Your task to perform on an android device: turn on location history Image 0: 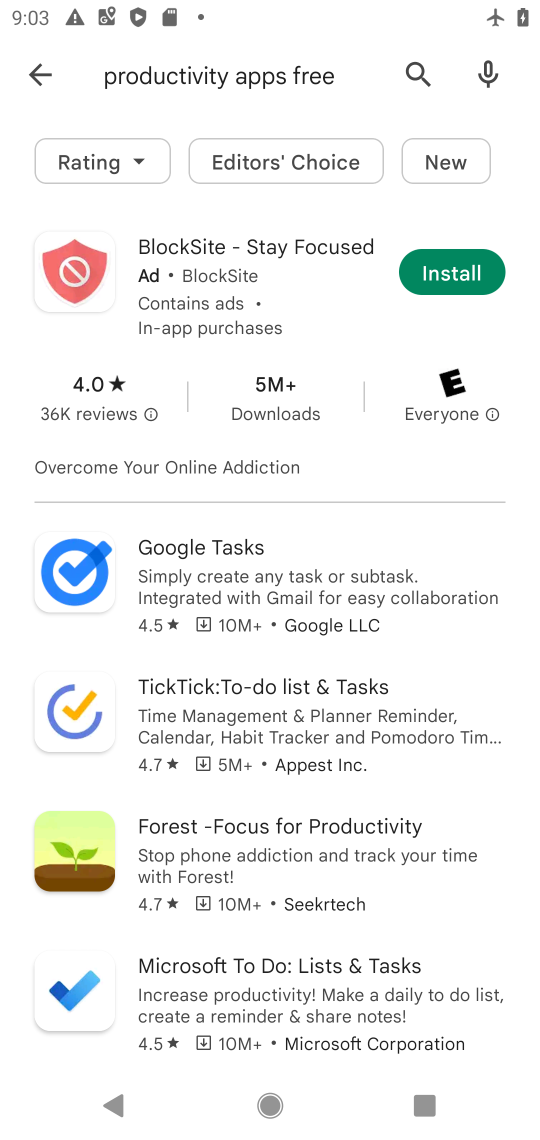
Step 0: press home button
Your task to perform on an android device: turn on location history Image 1: 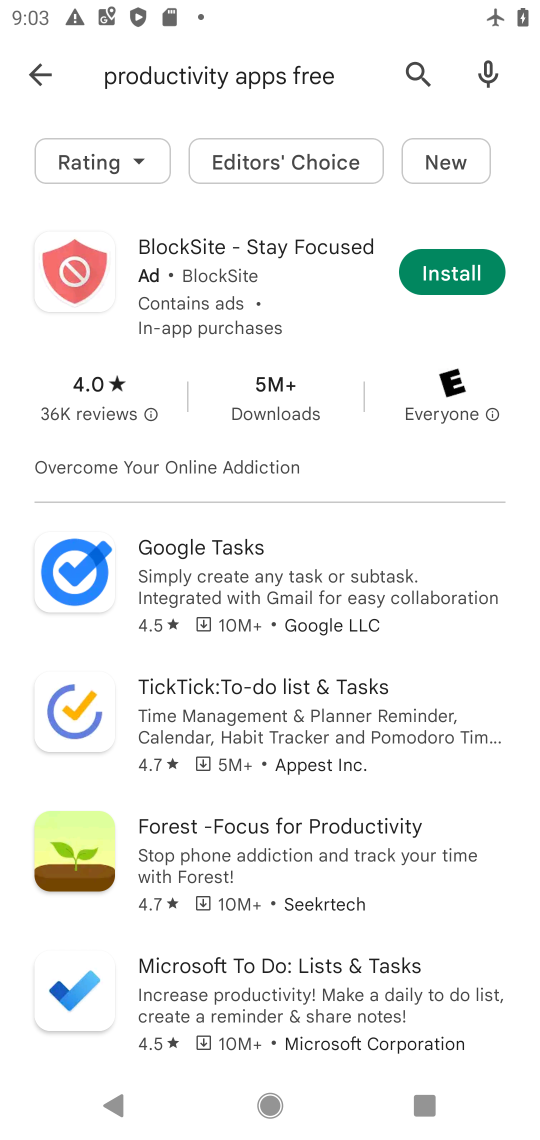
Step 1: press home button
Your task to perform on an android device: turn on location history Image 2: 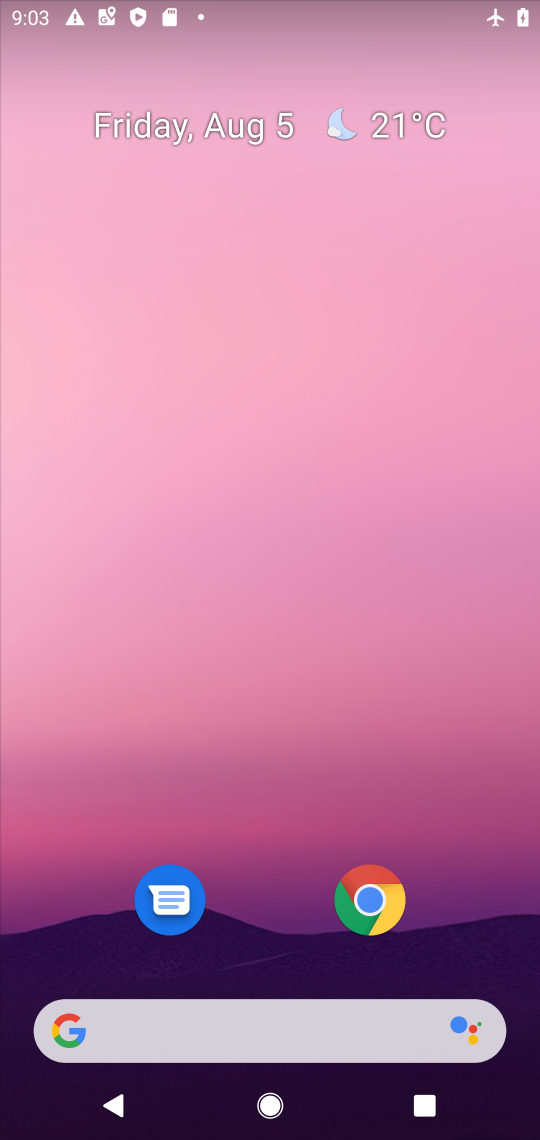
Step 2: drag from (323, 1011) to (323, 231)
Your task to perform on an android device: turn on location history Image 3: 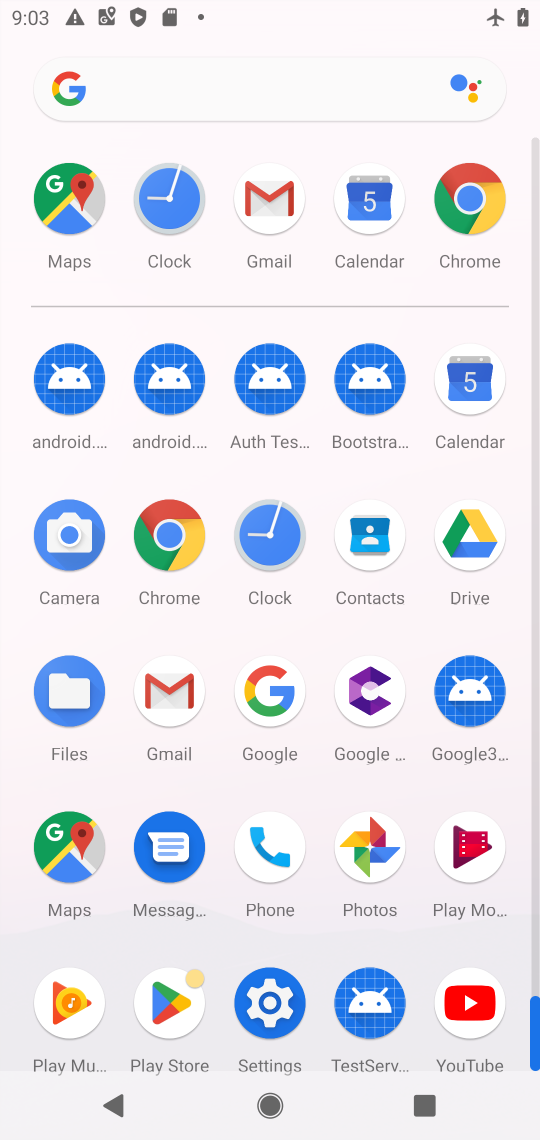
Step 3: click (77, 202)
Your task to perform on an android device: turn on location history Image 4: 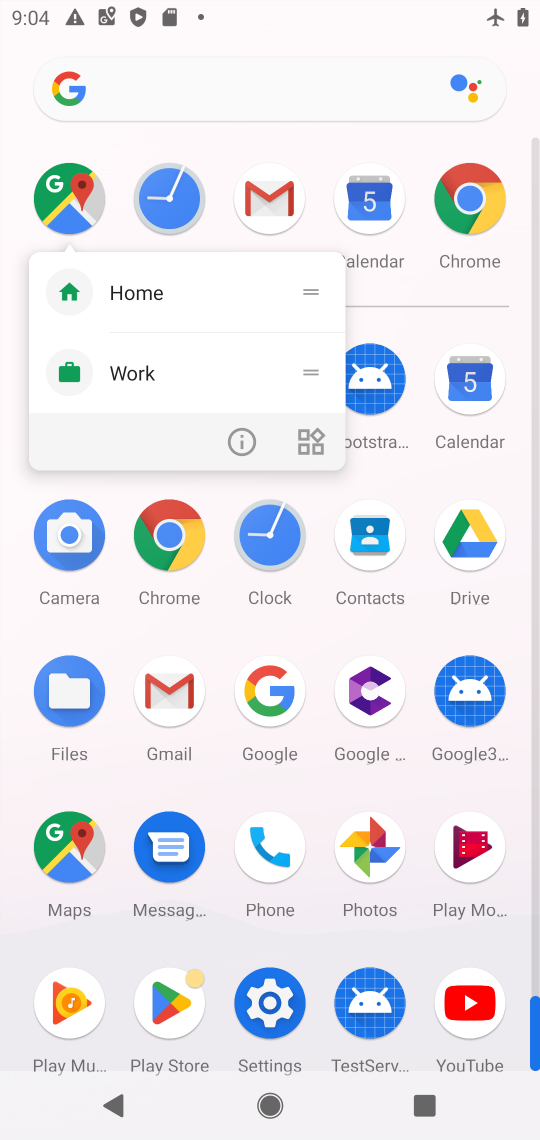
Step 4: click (56, 206)
Your task to perform on an android device: turn on location history Image 5: 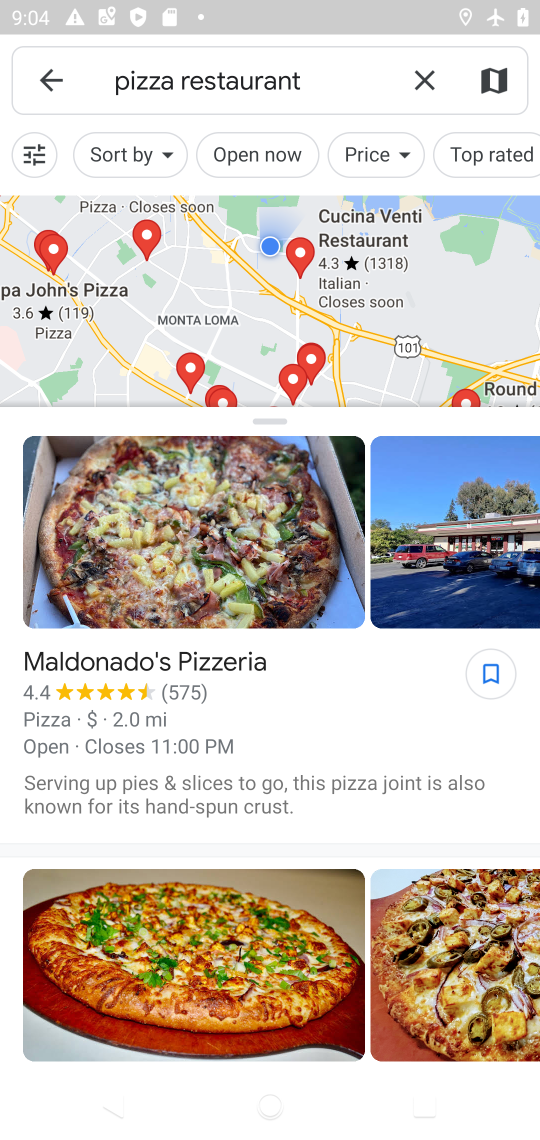
Step 5: click (51, 85)
Your task to perform on an android device: turn on location history Image 6: 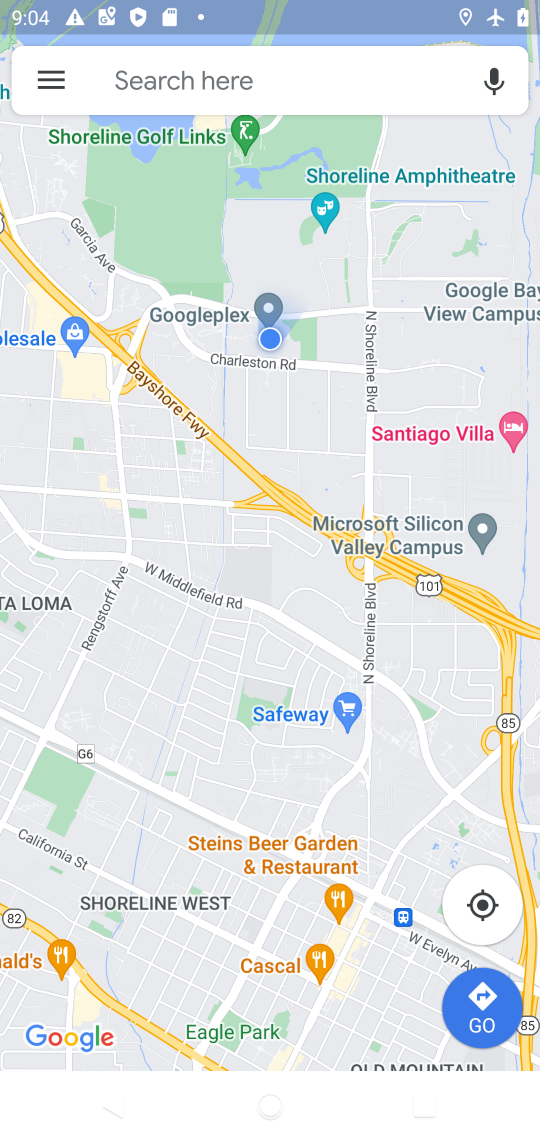
Step 6: click (51, 85)
Your task to perform on an android device: turn on location history Image 7: 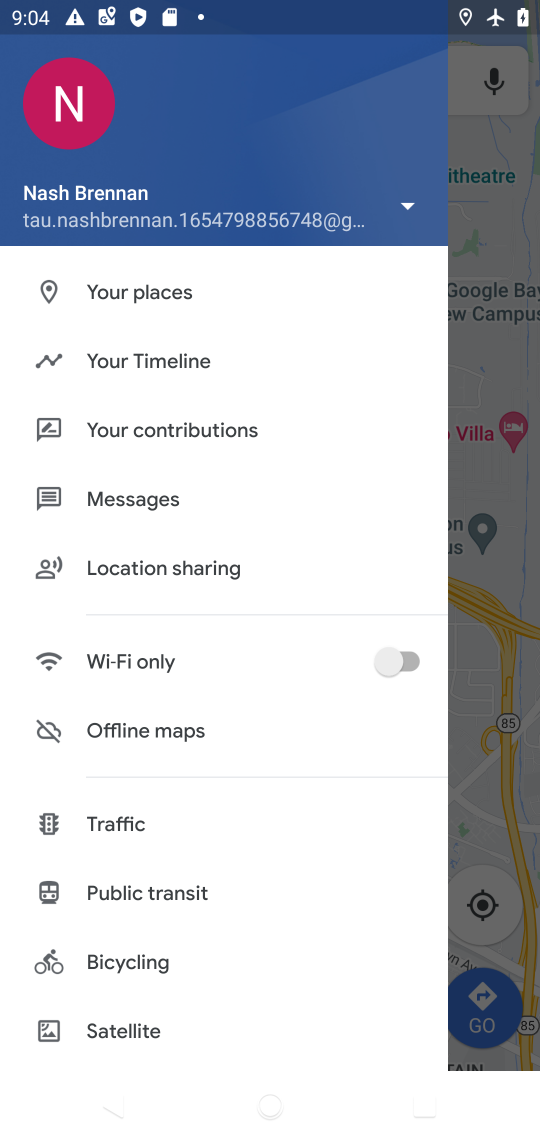
Step 7: click (46, 348)
Your task to perform on an android device: turn on location history Image 8: 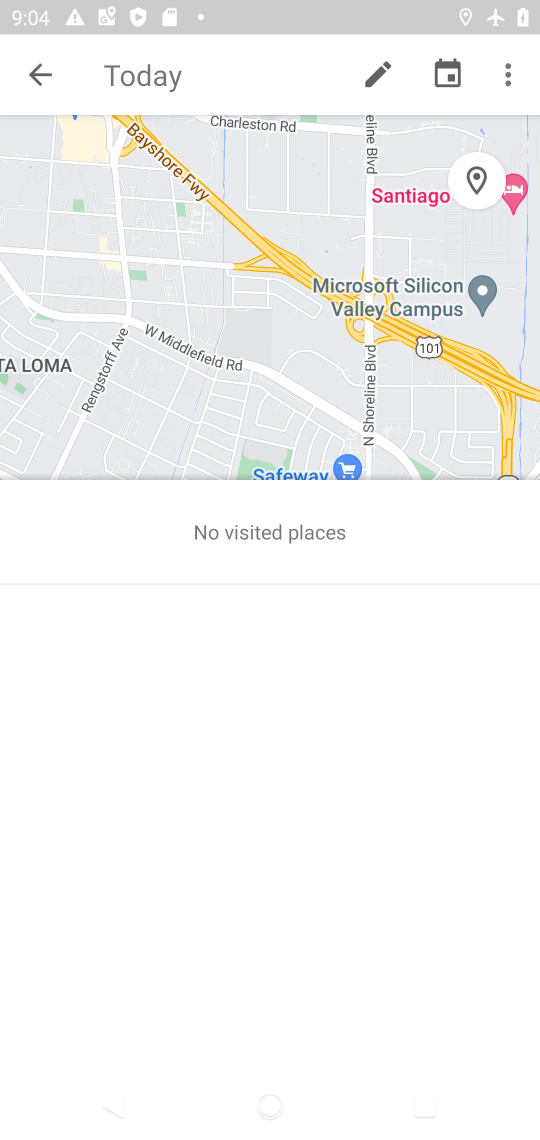
Step 8: click (508, 80)
Your task to perform on an android device: turn on location history Image 9: 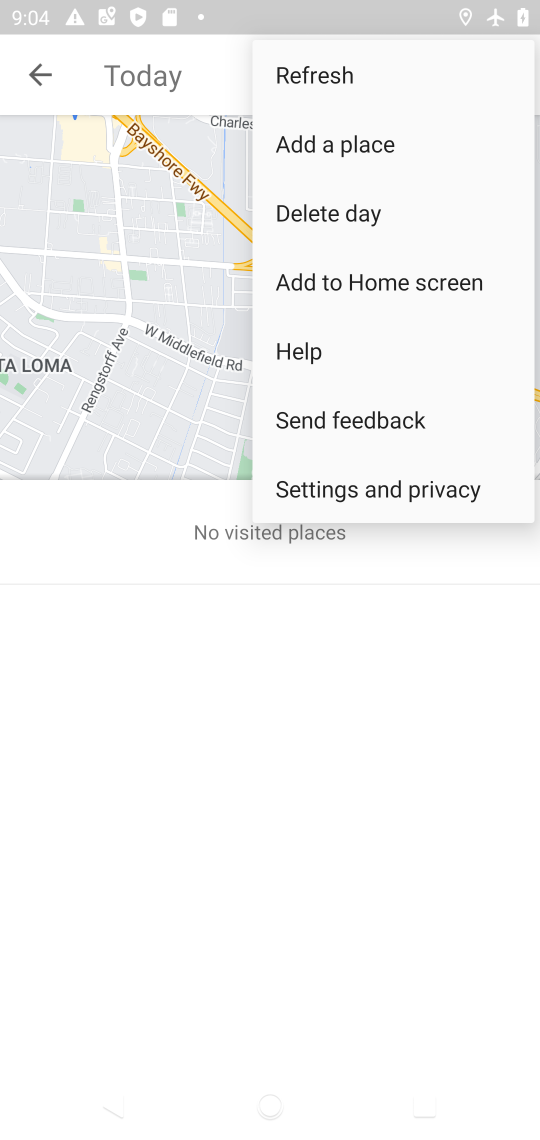
Step 9: click (292, 482)
Your task to perform on an android device: turn on location history Image 10: 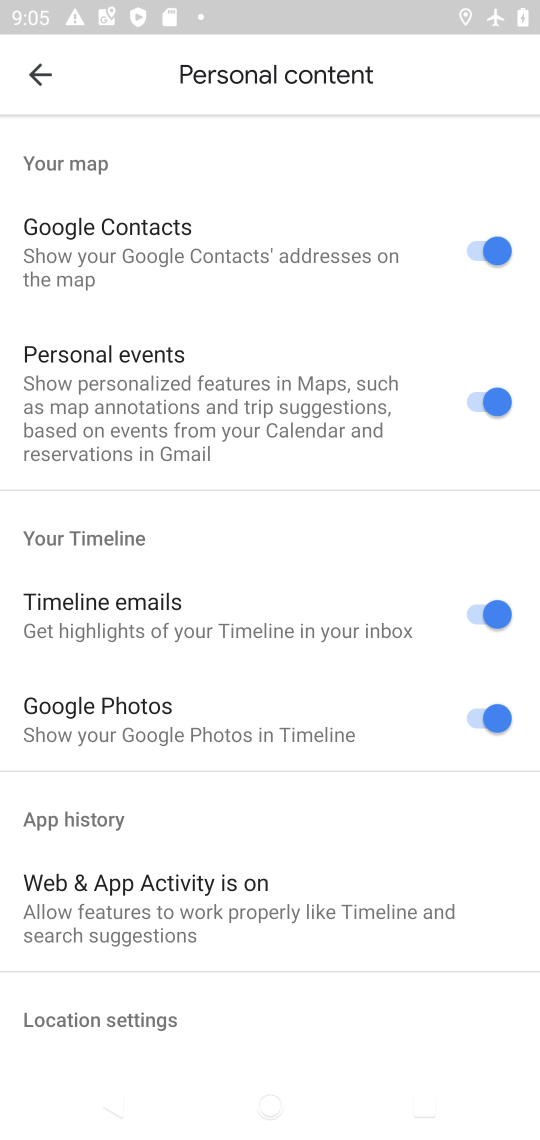
Step 10: drag from (195, 882) to (232, 5)
Your task to perform on an android device: turn on location history Image 11: 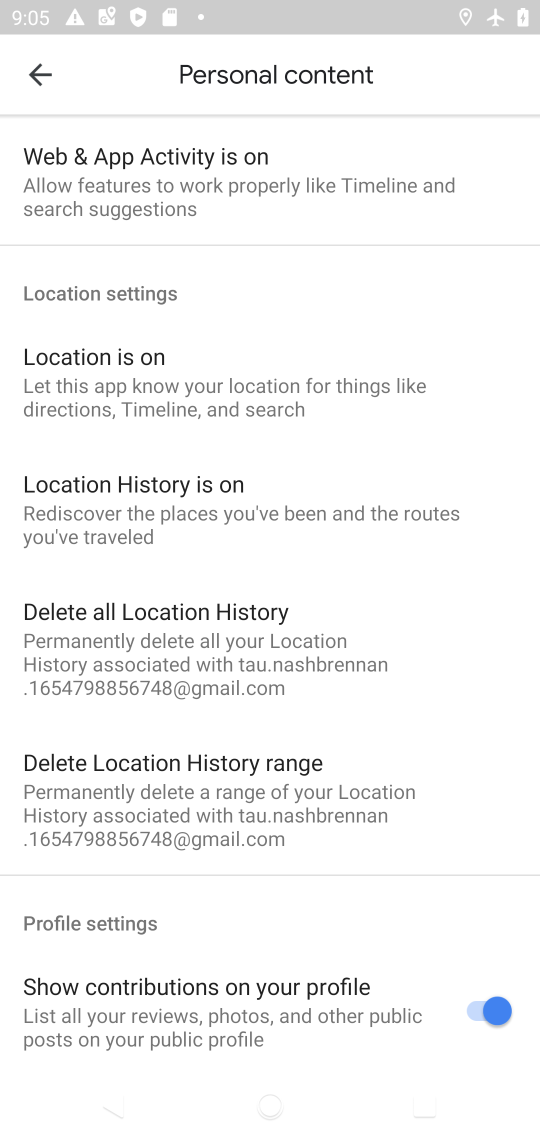
Step 11: click (244, 512)
Your task to perform on an android device: turn on location history Image 12: 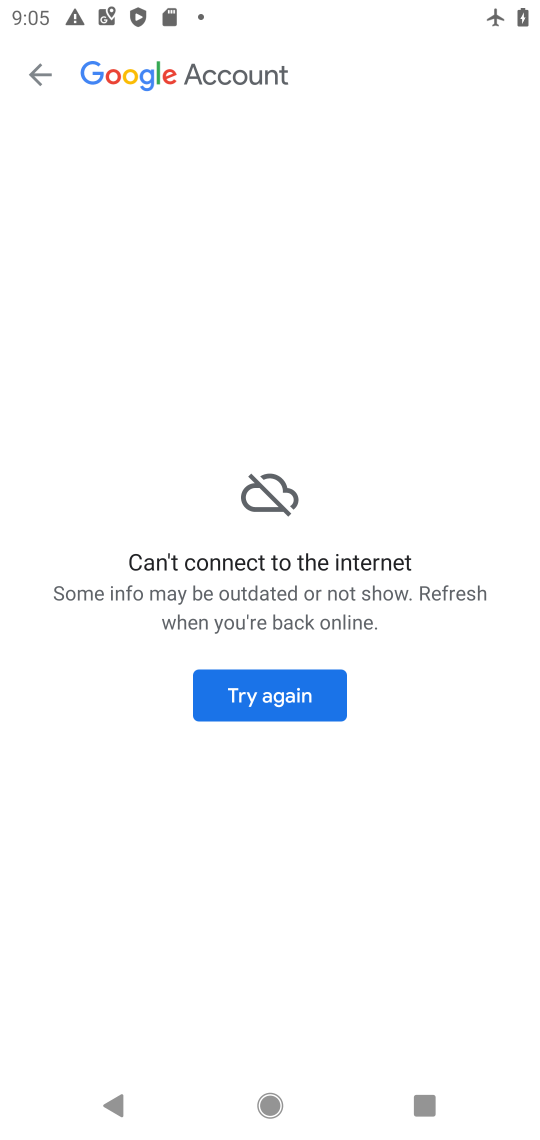
Step 12: drag from (388, 0) to (354, 1139)
Your task to perform on an android device: turn on location history Image 13: 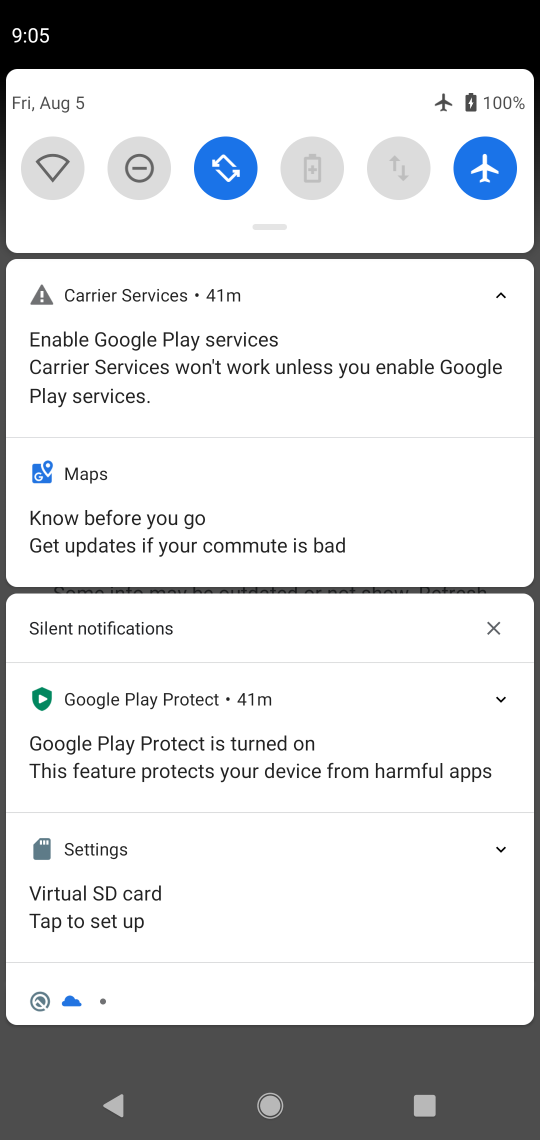
Step 13: click (481, 154)
Your task to perform on an android device: turn on location history Image 14: 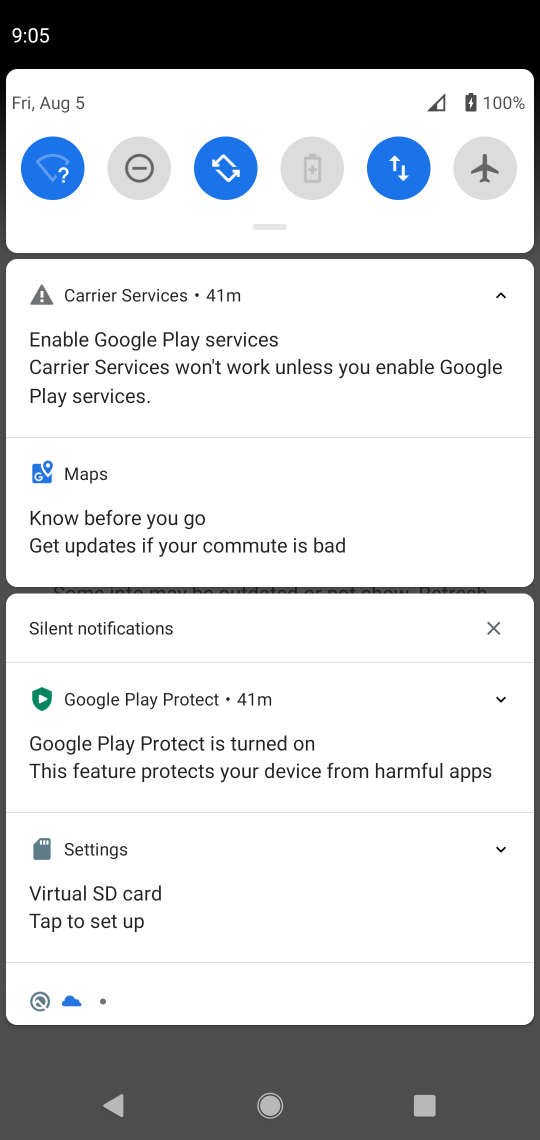
Step 14: press back button
Your task to perform on an android device: turn on location history Image 15: 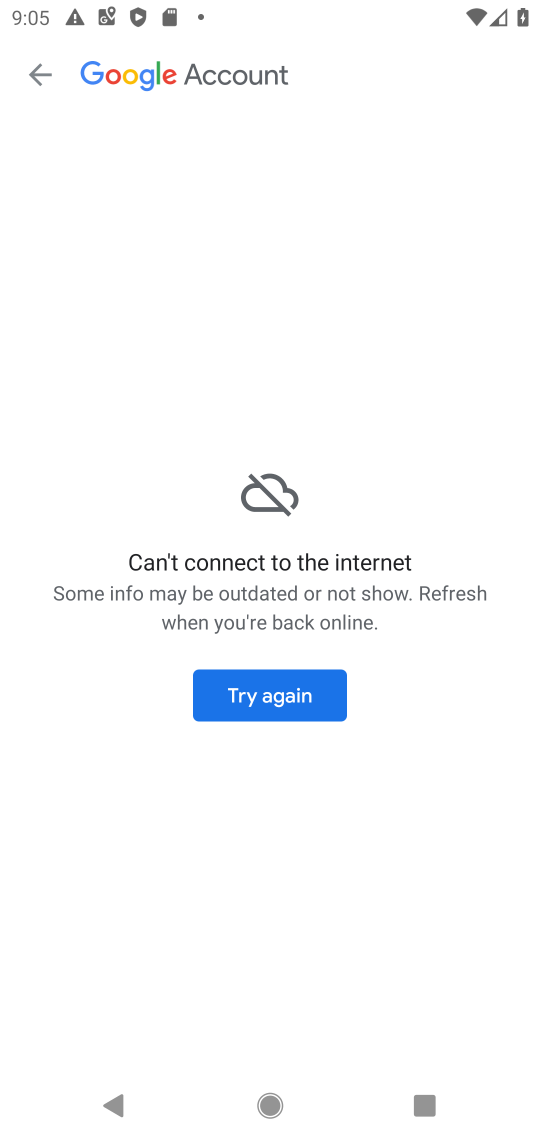
Step 15: click (260, 692)
Your task to perform on an android device: turn on location history Image 16: 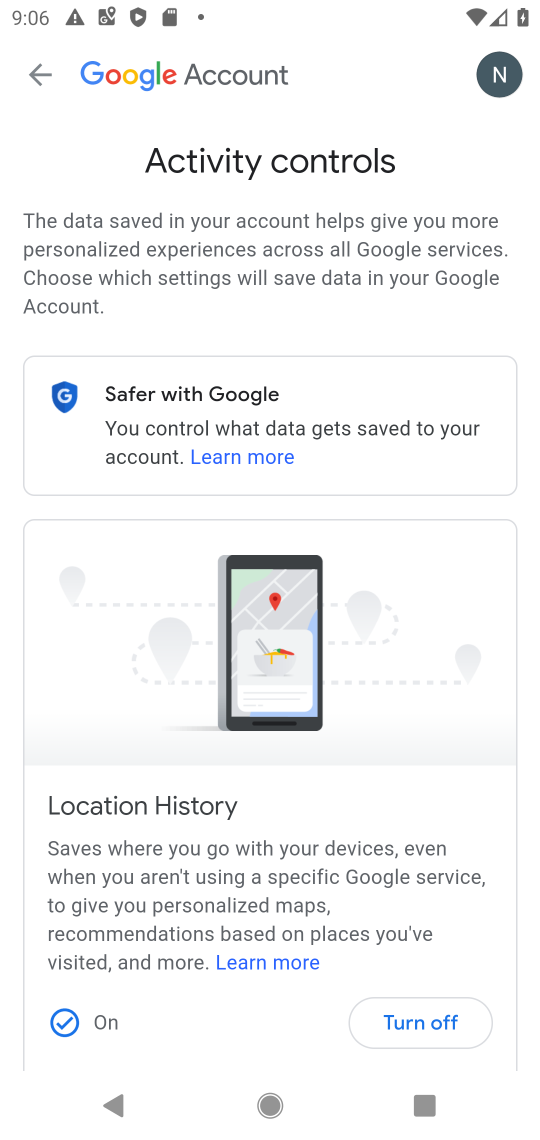
Step 16: task complete